Your task to perform on an android device: Open Maps and search for coffee Image 0: 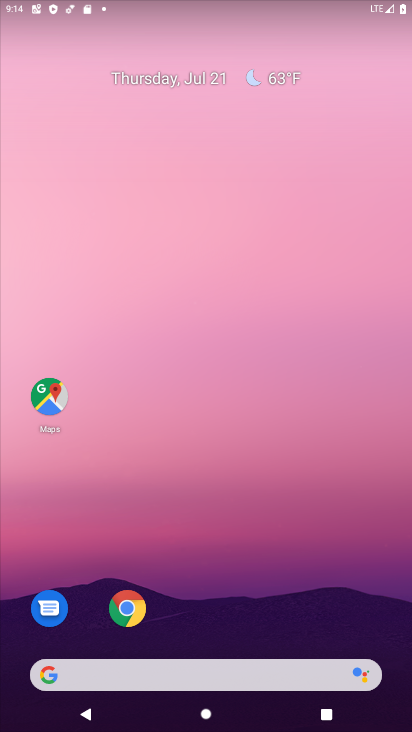
Step 0: drag from (187, 680) to (161, 188)
Your task to perform on an android device: Open Maps and search for coffee Image 1: 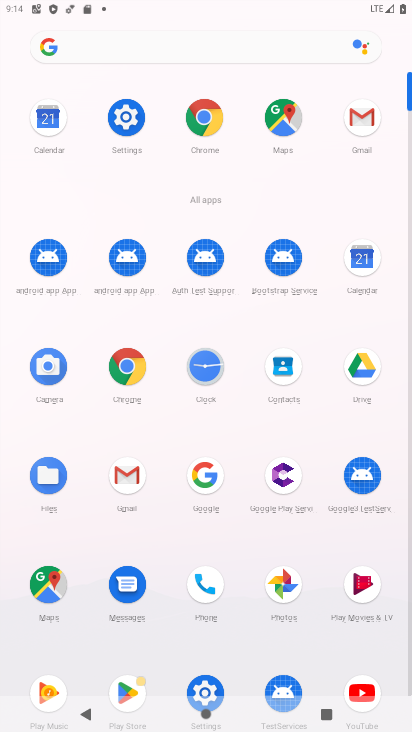
Step 1: drag from (177, 510) to (181, 319)
Your task to perform on an android device: Open Maps and search for coffee Image 2: 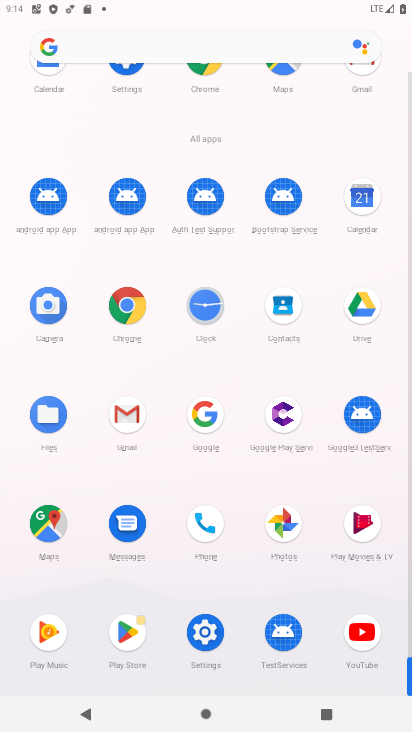
Step 2: click (36, 522)
Your task to perform on an android device: Open Maps and search for coffee Image 3: 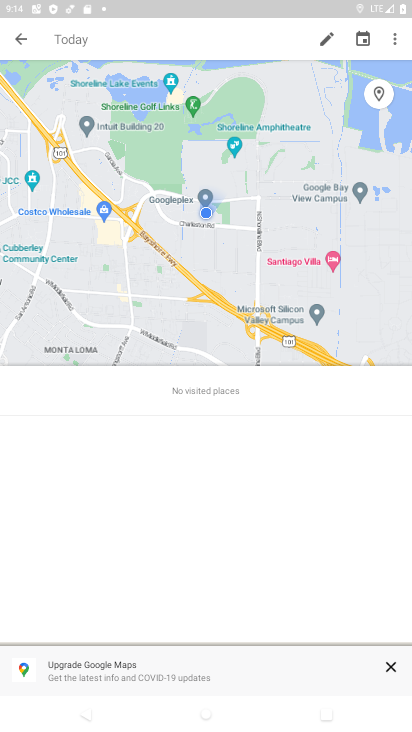
Step 3: click (20, 50)
Your task to perform on an android device: Open Maps and search for coffee Image 4: 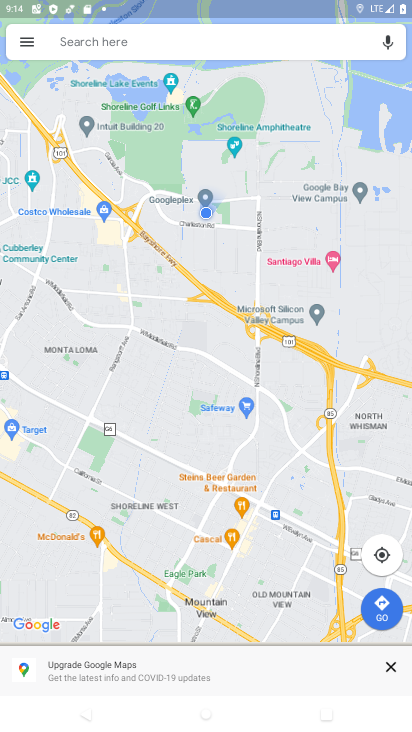
Step 4: click (108, 47)
Your task to perform on an android device: Open Maps and search for coffee Image 5: 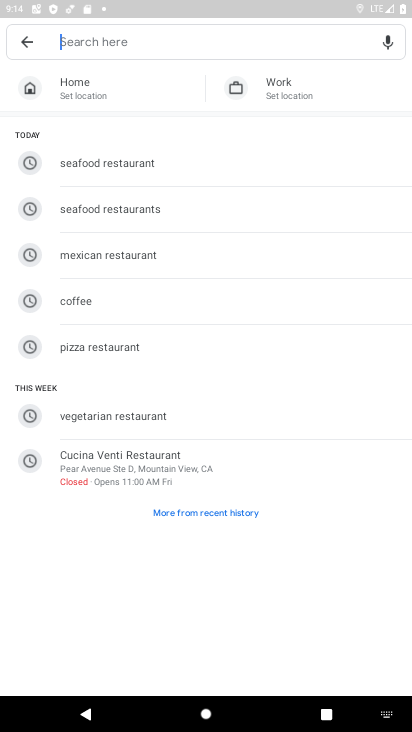
Step 5: click (65, 303)
Your task to perform on an android device: Open Maps and search for coffee Image 6: 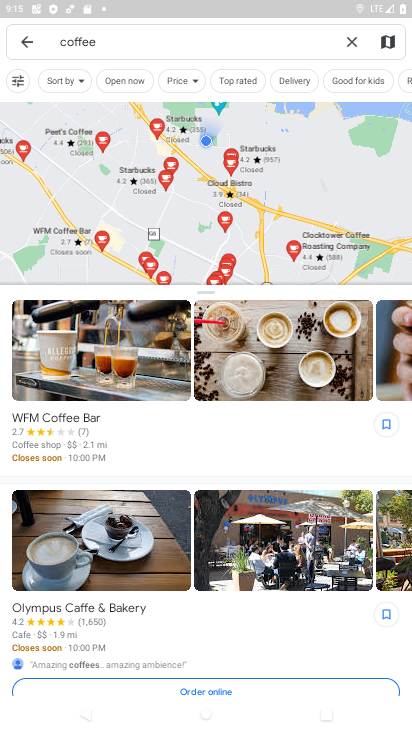
Step 6: task complete